Your task to perform on an android device: change the clock display to show seconds Image 0: 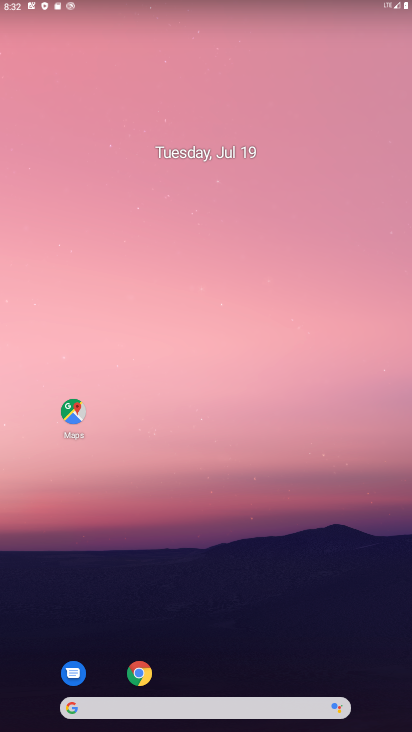
Step 0: drag from (348, 635) to (141, 35)
Your task to perform on an android device: change the clock display to show seconds Image 1: 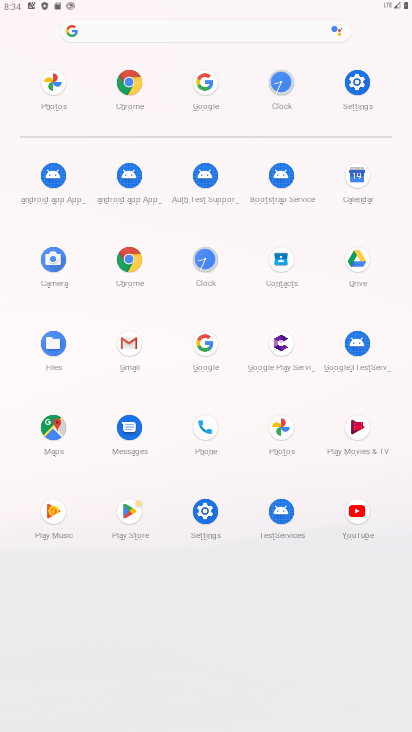
Step 1: click (205, 266)
Your task to perform on an android device: change the clock display to show seconds Image 2: 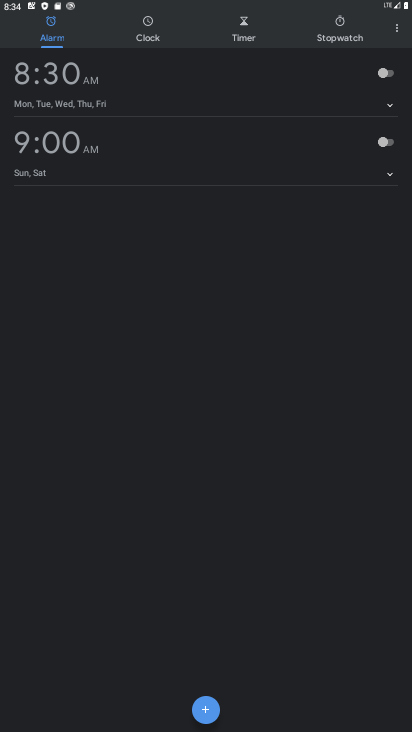
Step 2: click (390, 31)
Your task to perform on an android device: change the clock display to show seconds Image 3: 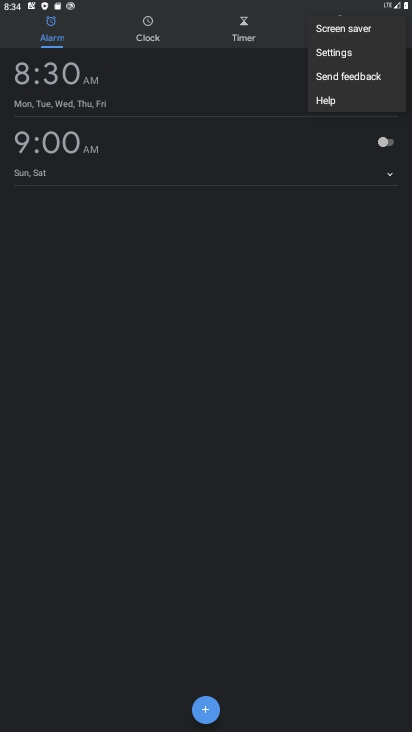
Step 3: click (342, 55)
Your task to perform on an android device: change the clock display to show seconds Image 4: 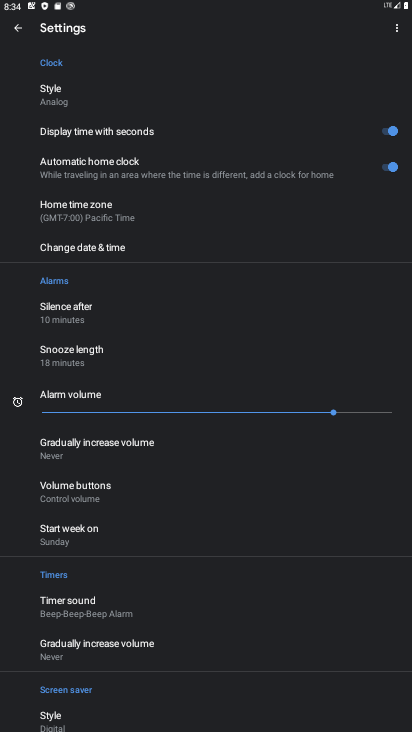
Step 4: click (384, 132)
Your task to perform on an android device: change the clock display to show seconds Image 5: 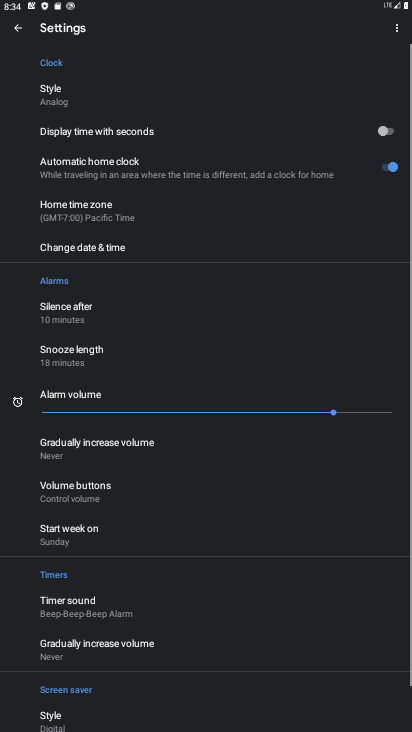
Step 5: task complete